Your task to perform on an android device: Show me popular videos on Youtube Image 0: 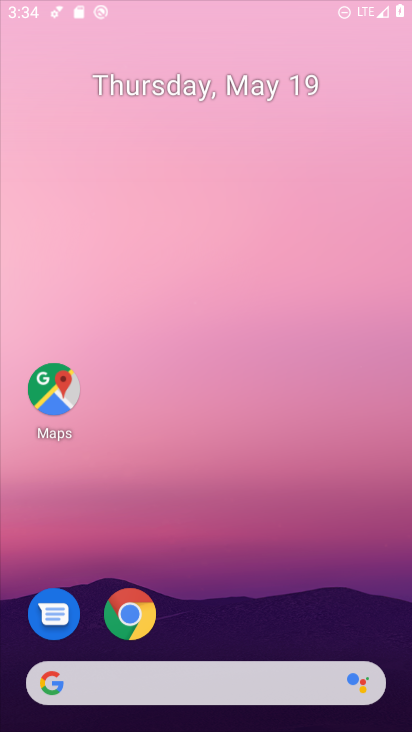
Step 0: drag from (234, 620) to (197, 69)
Your task to perform on an android device: Show me popular videos on Youtube Image 1: 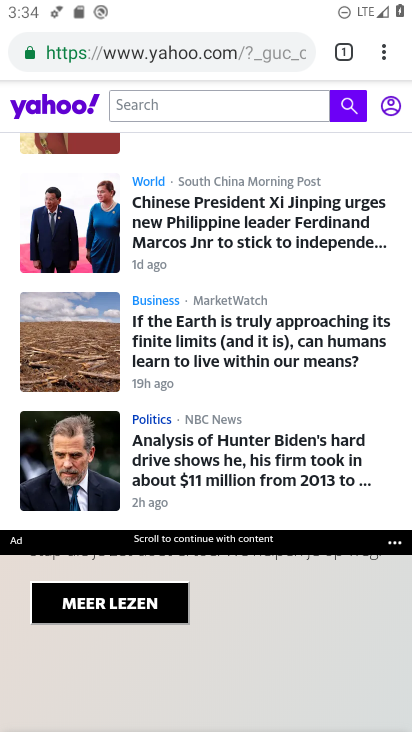
Step 1: press home button
Your task to perform on an android device: Show me popular videos on Youtube Image 2: 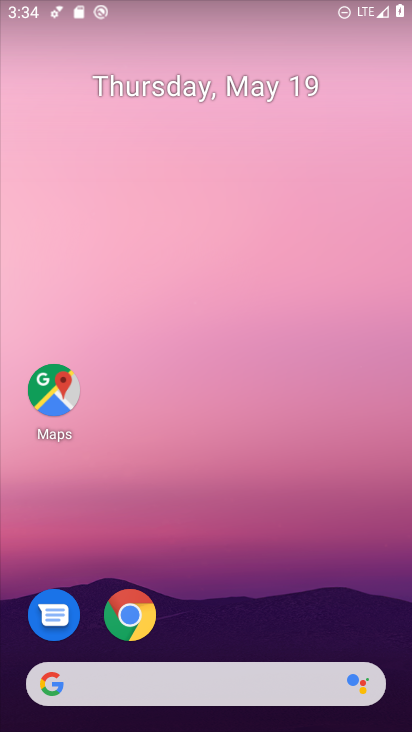
Step 2: drag from (271, 634) to (172, 156)
Your task to perform on an android device: Show me popular videos on Youtube Image 3: 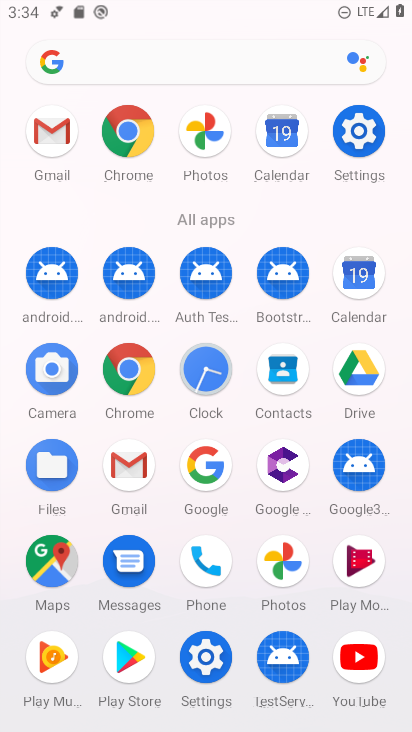
Step 3: click (370, 644)
Your task to perform on an android device: Show me popular videos on Youtube Image 4: 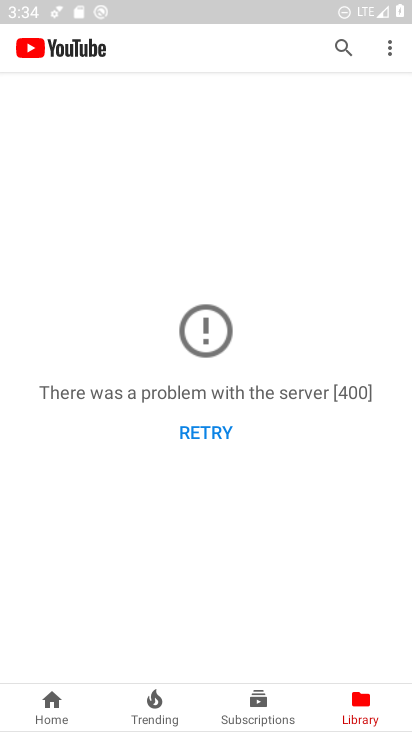
Step 4: click (55, 711)
Your task to perform on an android device: Show me popular videos on Youtube Image 5: 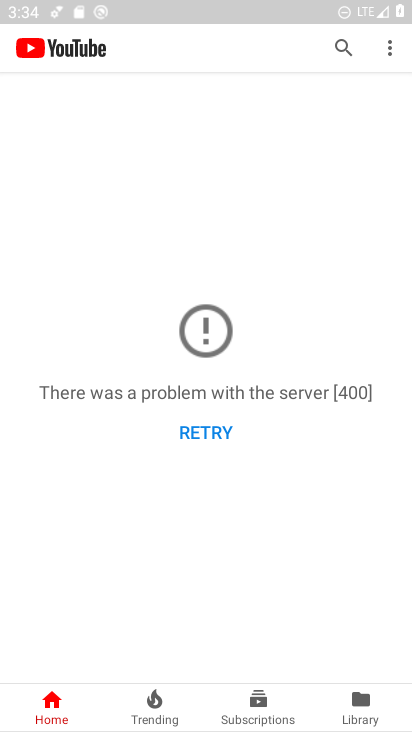
Step 5: task complete